Your task to perform on an android device: Open CNN.com Image 0: 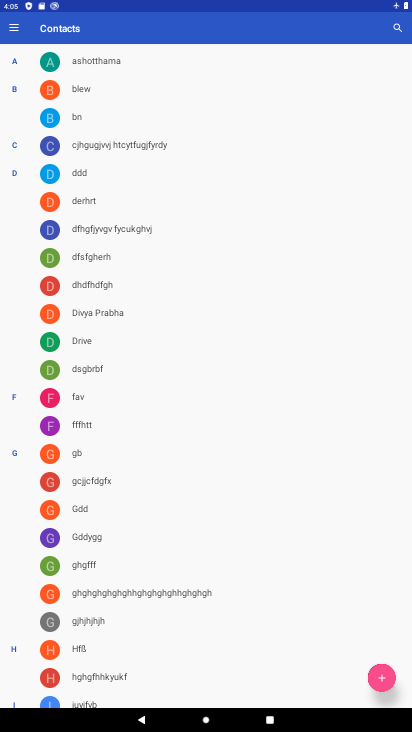
Step 0: press home button
Your task to perform on an android device: Open CNN.com Image 1: 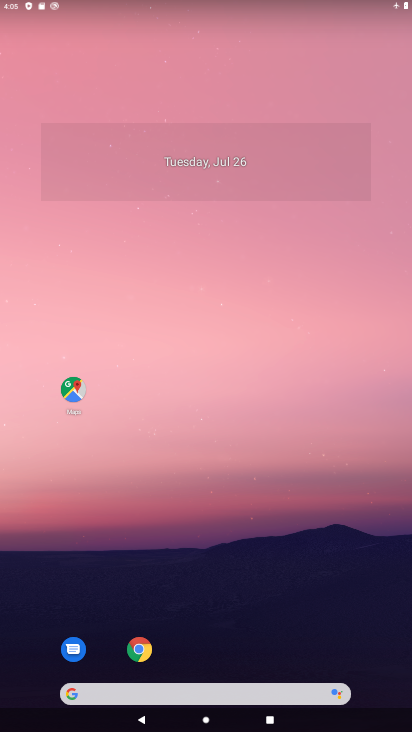
Step 1: click (145, 633)
Your task to perform on an android device: Open CNN.com Image 2: 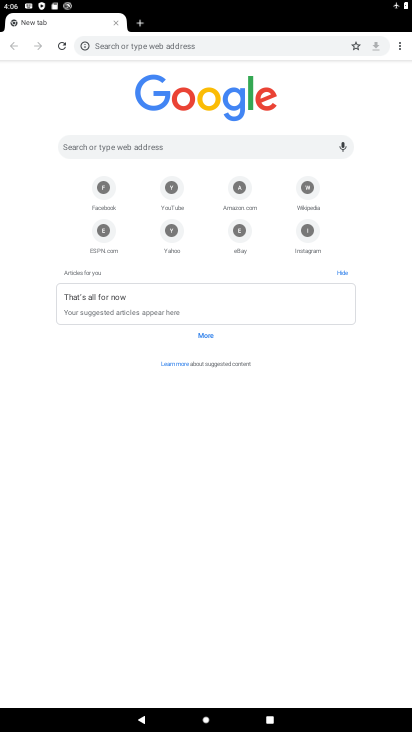
Step 2: click (234, 138)
Your task to perform on an android device: Open CNN.com Image 3: 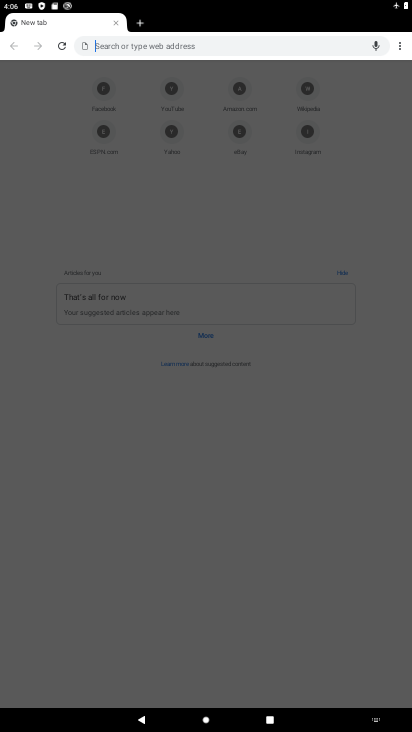
Step 3: type "CNN.com"
Your task to perform on an android device: Open CNN.com Image 4: 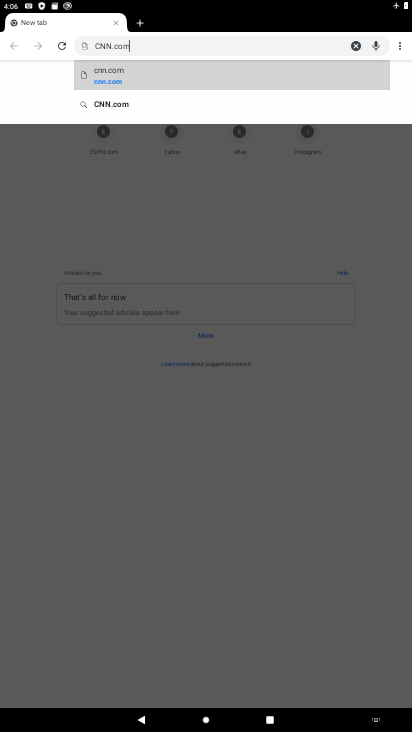
Step 4: type ""
Your task to perform on an android device: Open CNN.com Image 5: 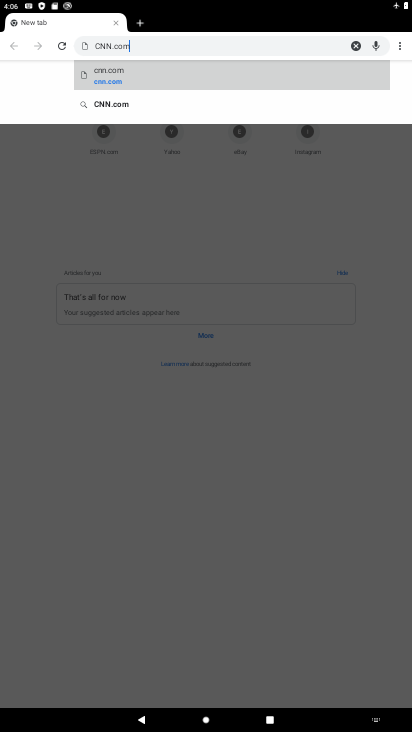
Step 5: click (150, 81)
Your task to perform on an android device: Open CNN.com Image 6: 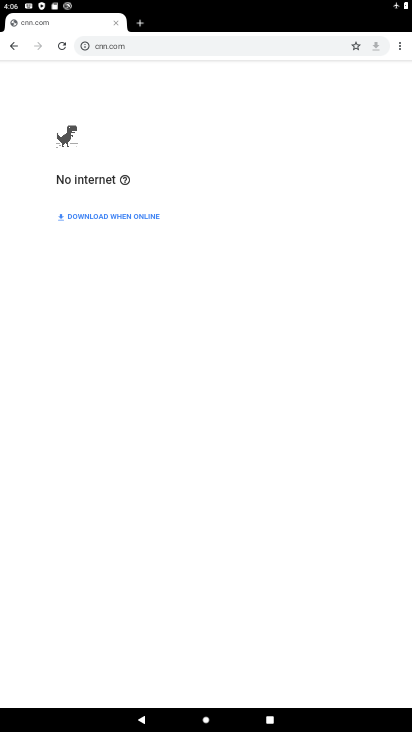
Step 6: task complete